Your task to perform on an android device: check the backup settings in the google photos Image 0: 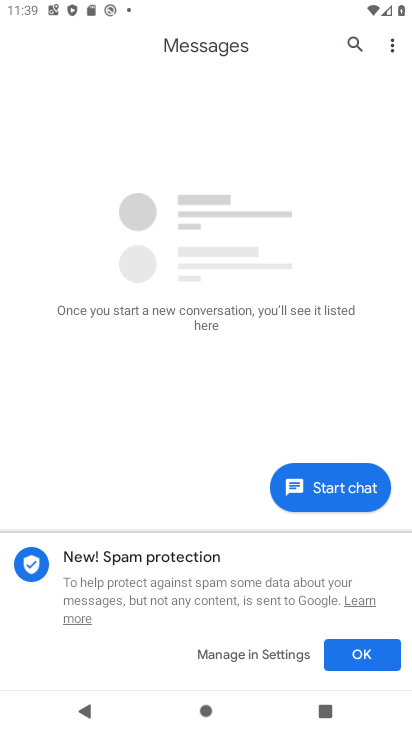
Step 0: press back button
Your task to perform on an android device: check the backup settings in the google photos Image 1: 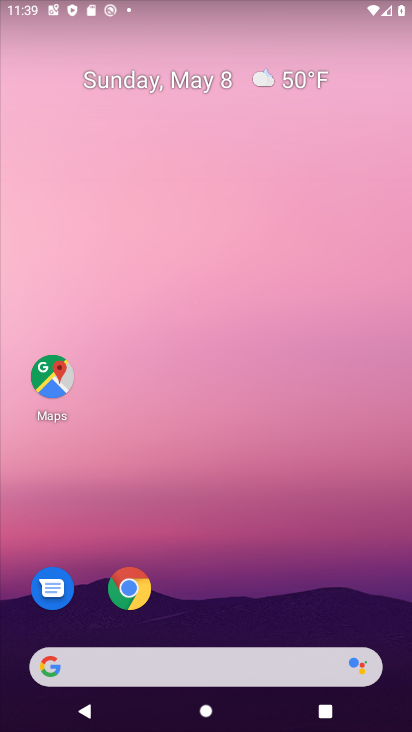
Step 1: drag from (235, 568) to (303, 22)
Your task to perform on an android device: check the backup settings in the google photos Image 2: 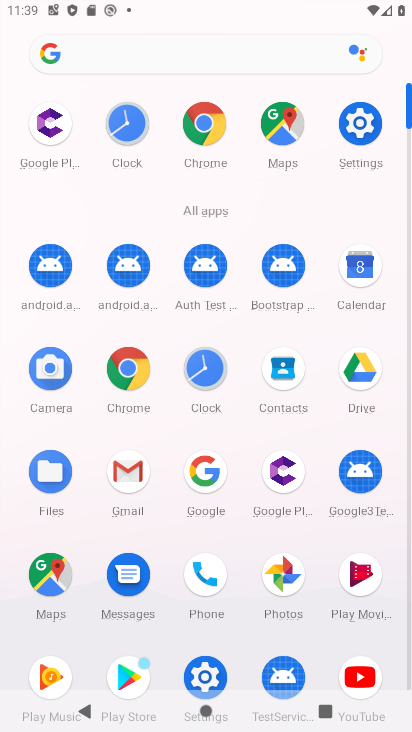
Step 2: click (286, 570)
Your task to perform on an android device: check the backup settings in the google photos Image 3: 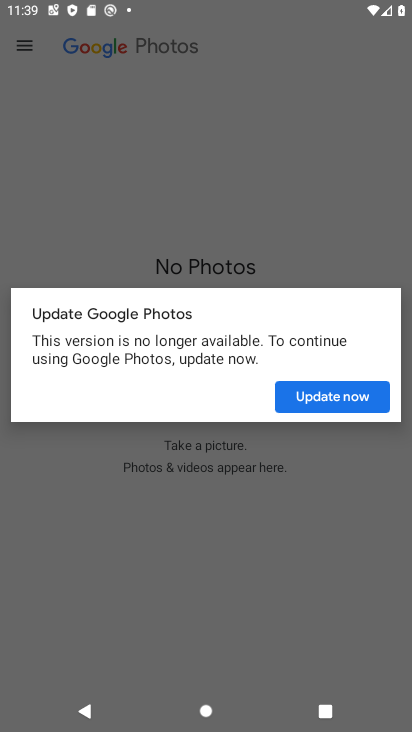
Step 3: click (319, 396)
Your task to perform on an android device: check the backup settings in the google photos Image 4: 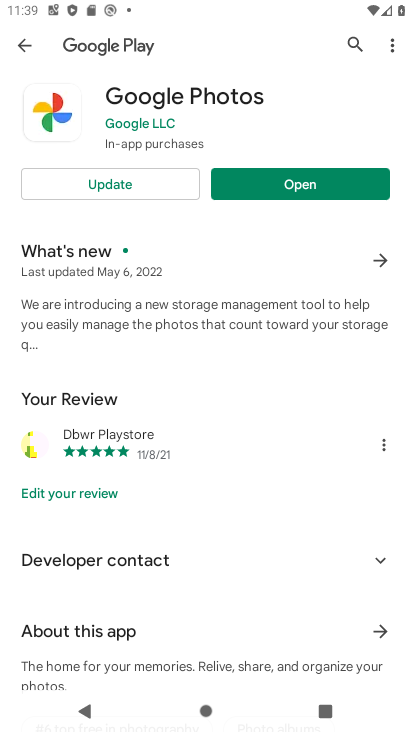
Step 4: click (298, 177)
Your task to perform on an android device: check the backup settings in the google photos Image 5: 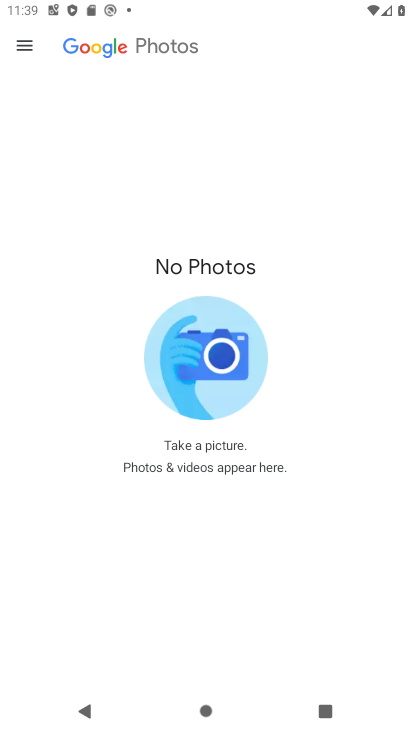
Step 5: click (15, 42)
Your task to perform on an android device: check the backup settings in the google photos Image 6: 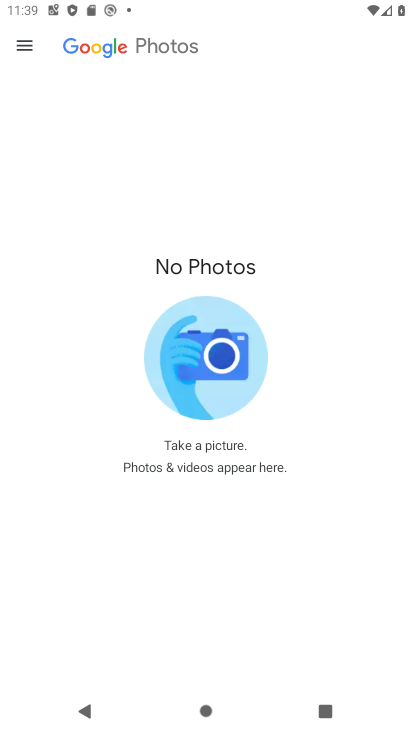
Step 6: click (22, 39)
Your task to perform on an android device: check the backup settings in the google photos Image 7: 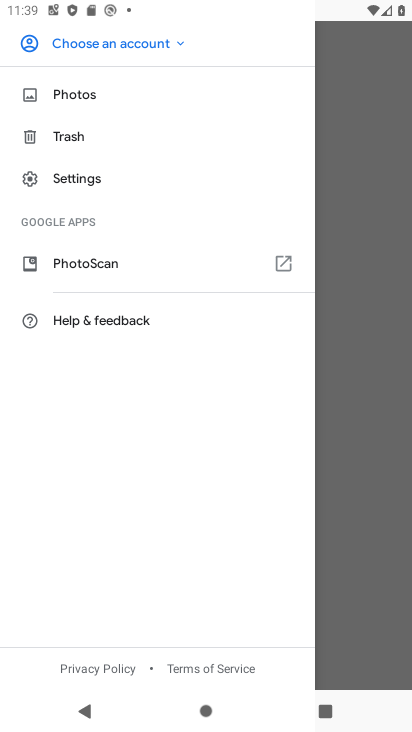
Step 7: click (91, 174)
Your task to perform on an android device: check the backup settings in the google photos Image 8: 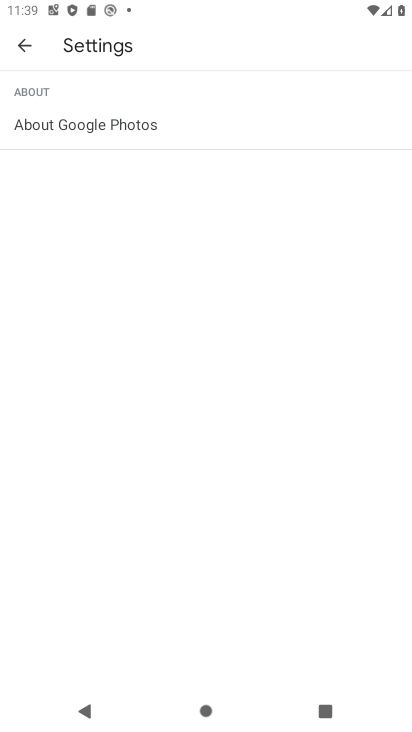
Step 8: task complete